Your task to perform on an android device: Open Amazon Image 0: 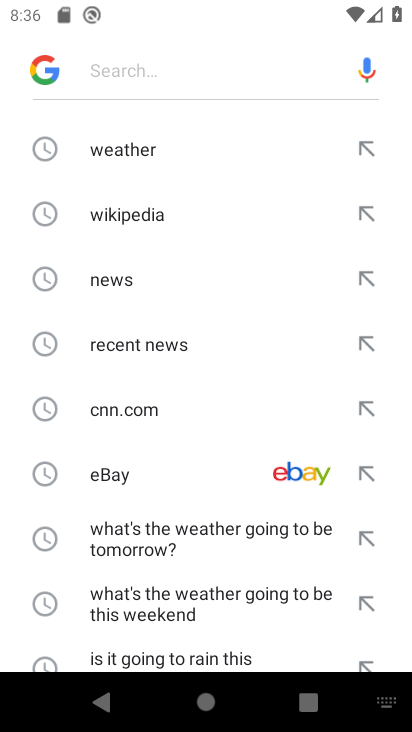
Step 0: press back button
Your task to perform on an android device: Open Amazon Image 1: 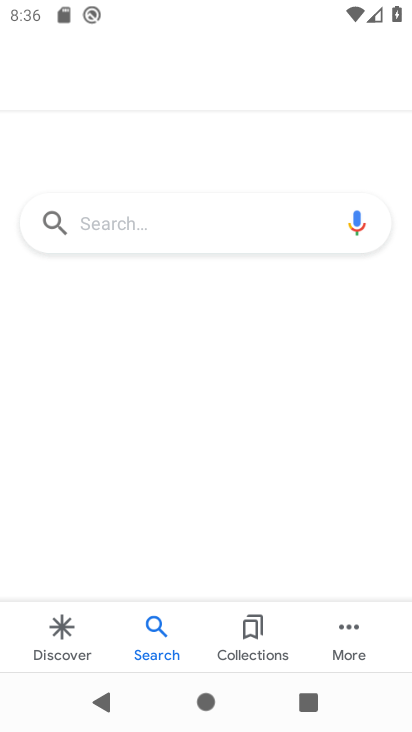
Step 1: press back button
Your task to perform on an android device: Open Amazon Image 2: 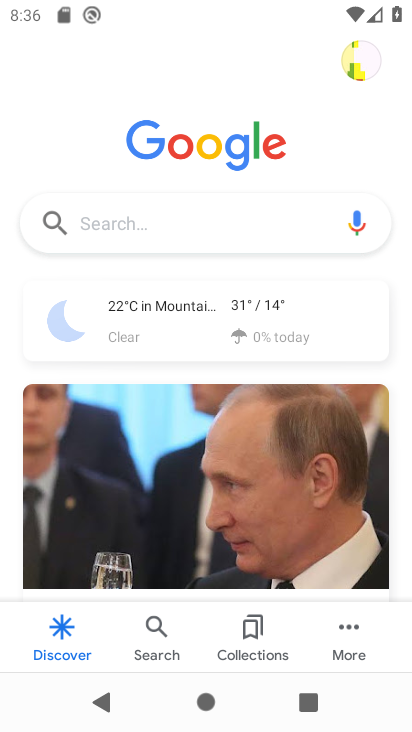
Step 2: press back button
Your task to perform on an android device: Open Amazon Image 3: 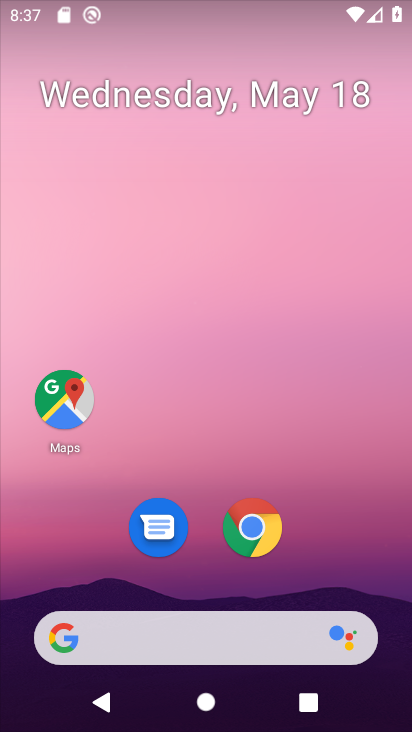
Step 3: click (251, 534)
Your task to perform on an android device: Open Amazon Image 4: 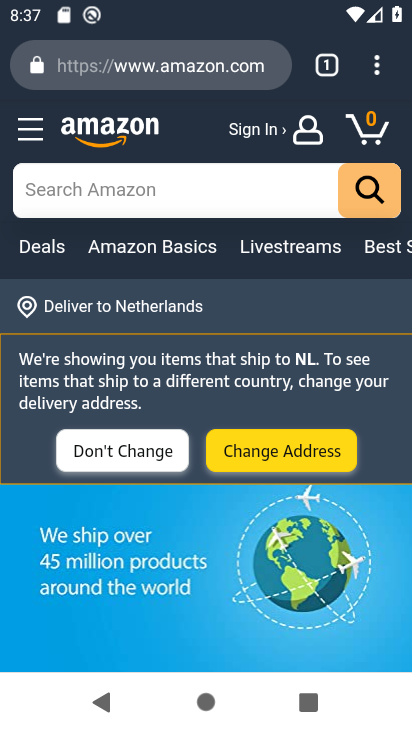
Step 4: task complete